Your task to perform on an android device: toggle translation in the chrome app Image 0: 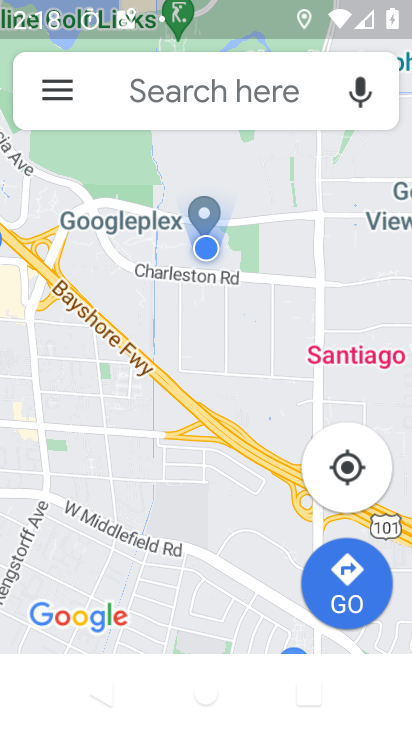
Step 0: press home button
Your task to perform on an android device: toggle translation in the chrome app Image 1: 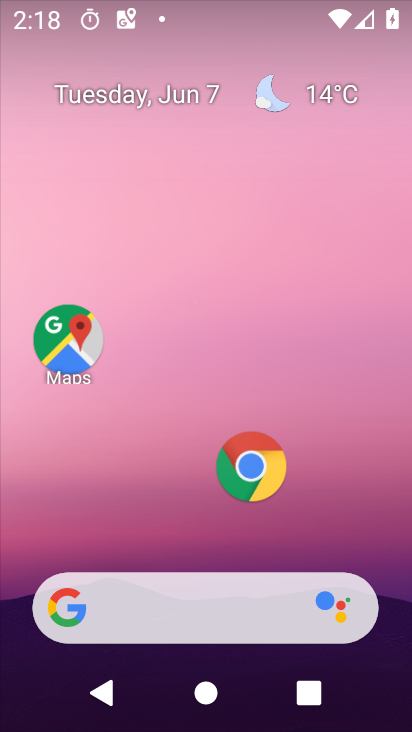
Step 1: click (263, 465)
Your task to perform on an android device: toggle translation in the chrome app Image 2: 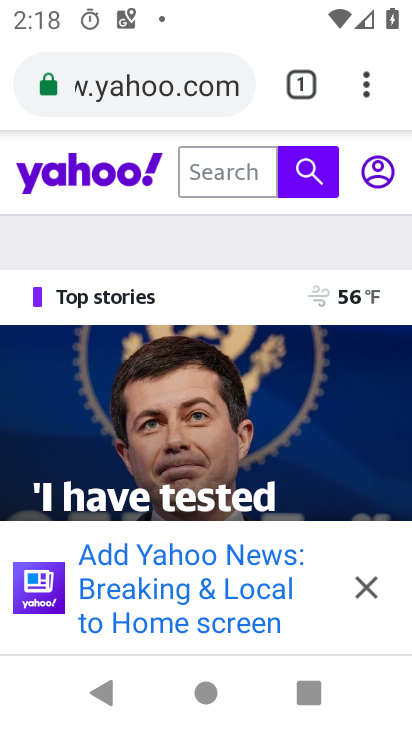
Step 2: click (368, 92)
Your task to perform on an android device: toggle translation in the chrome app Image 3: 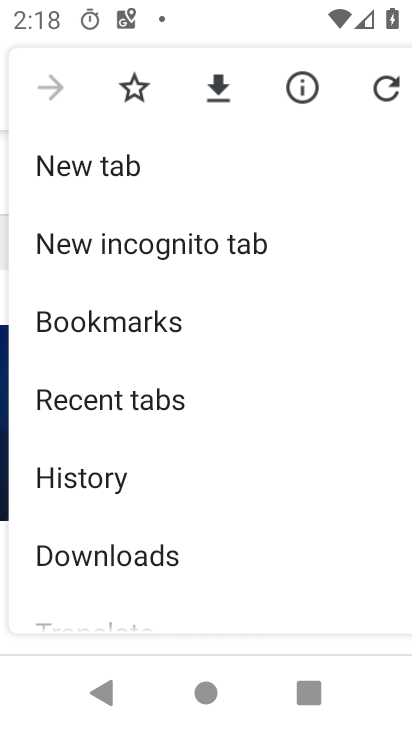
Step 3: drag from (269, 578) to (282, 334)
Your task to perform on an android device: toggle translation in the chrome app Image 4: 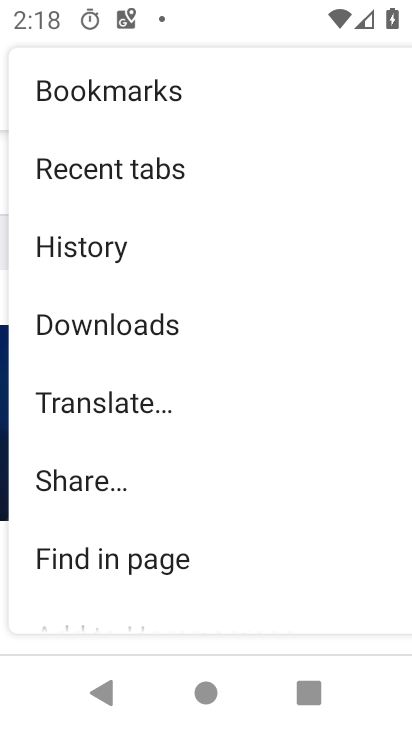
Step 4: drag from (284, 467) to (274, 263)
Your task to perform on an android device: toggle translation in the chrome app Image 5: 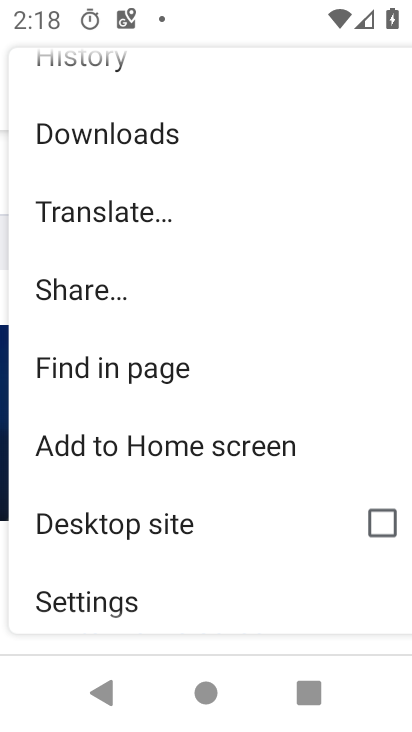
Step 5: click (85, 598)
Your task to perform on an android device: toggle translation in the chrome app Image 6: 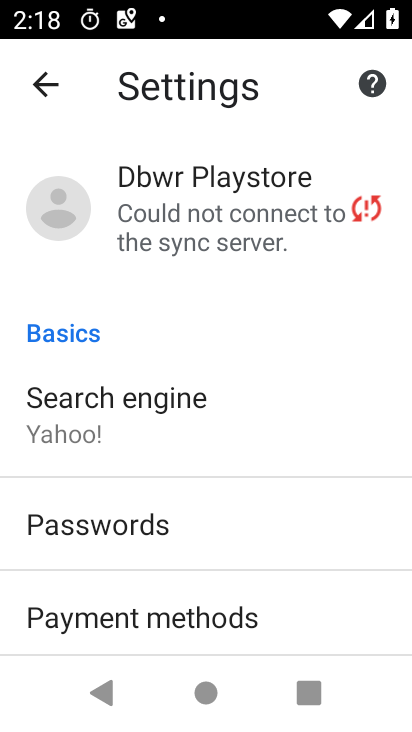
Step 6: drag from (216, 583) to (215, 386)
Your task to perform on an android device: toggle translation in the chrome app Image 7: 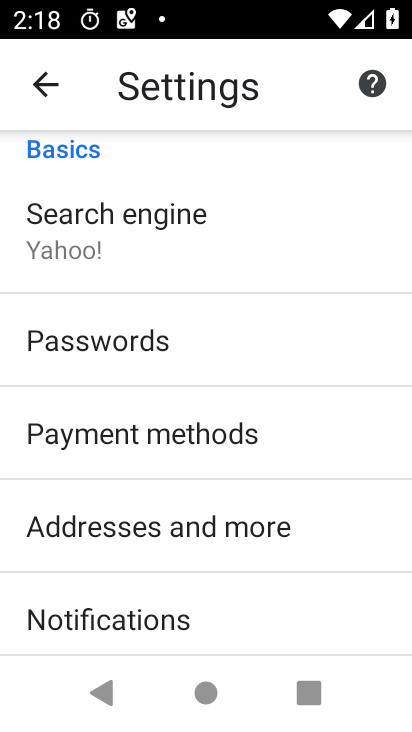
Step 7: drag from (292, 604) to (302, 397)
Your task to perform on an android device: toggle translation in the chrome app Image 8: 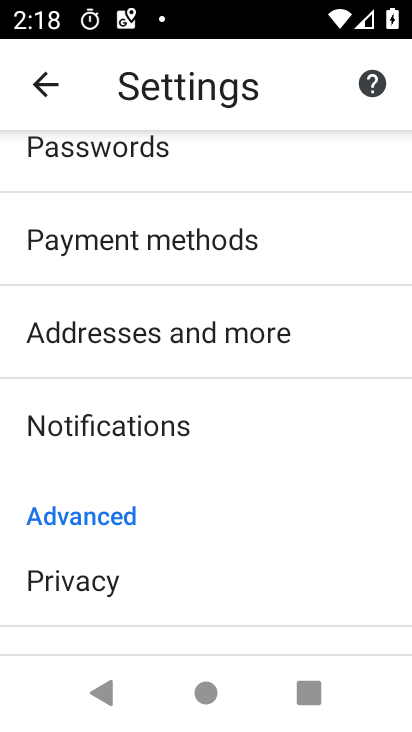
Step 8: drag from (212, 531) to (249, 313)
Your task to perform on an android device: toggle translation in the chrome app Image 9: 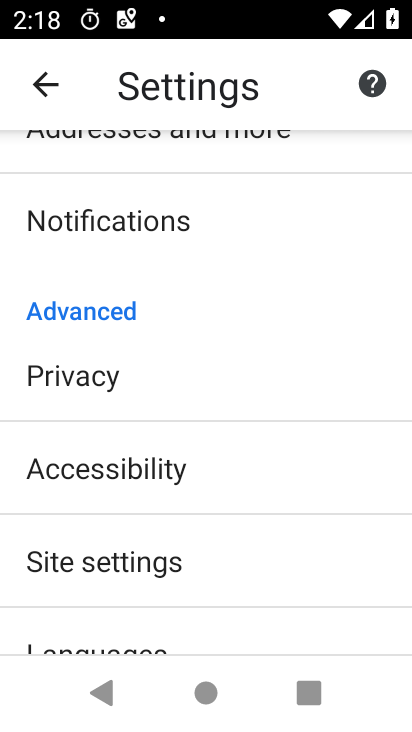
Step 9: drag from (224, 517) to (234, 400)
Your task to perform on an android device: toggle translation in the chrome app Image 10: 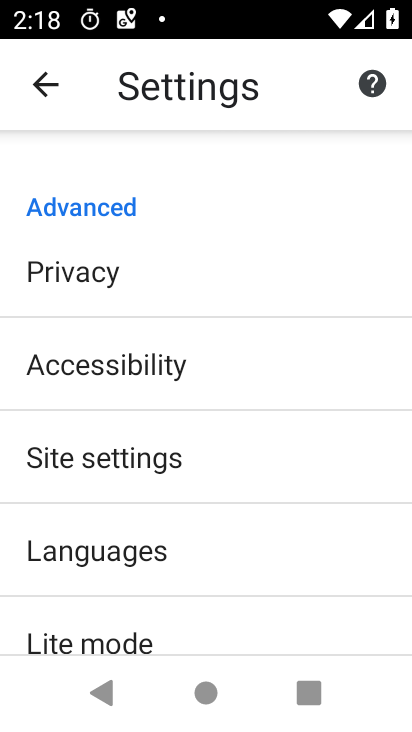
Step 10: click (176, 556)
Your task to perform on an android device: toggle translation in the chrome app Image 11: 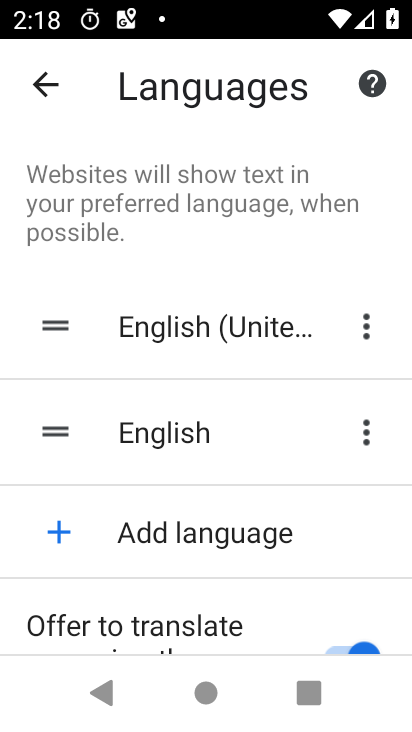
Step 11: drag from (287, 577) to (281, 263)
Your task to perform on an android device: toggle translation in the chrome app Image 12: 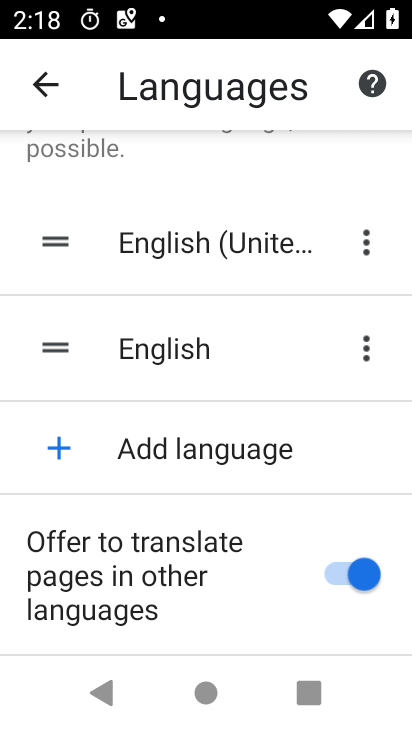
Step 12: click (370, 571)
Your task to perform on an android device: toggle translation in the chrome app Image 13: 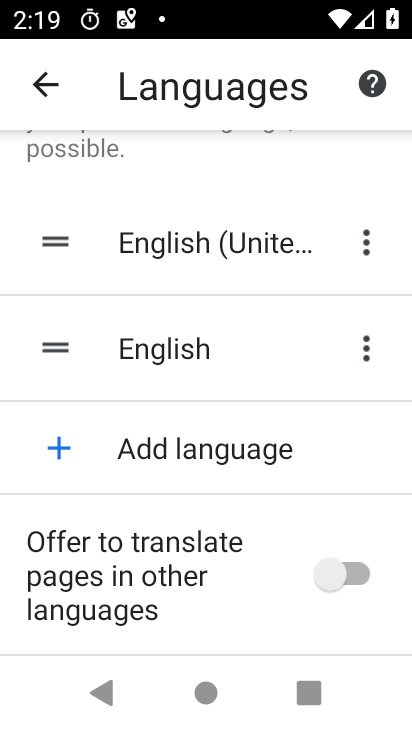
Step 13: task complete